Your task to perform on an android device: turn on bluetooth scan Image 0: 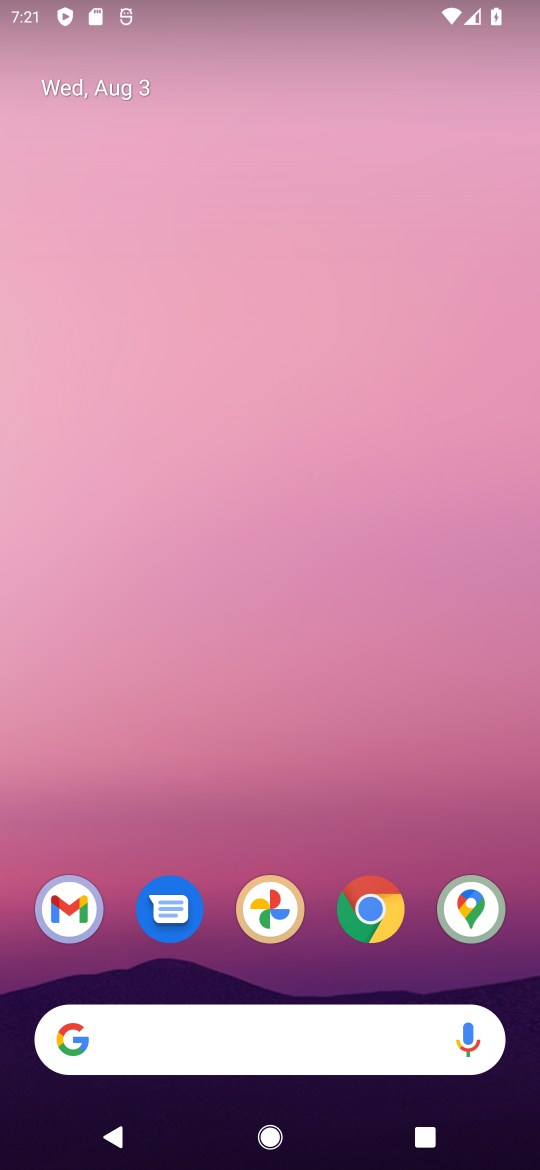
Step 0: press home button
Your task to perform on an android device: turn on bluetooth scan Image 1: 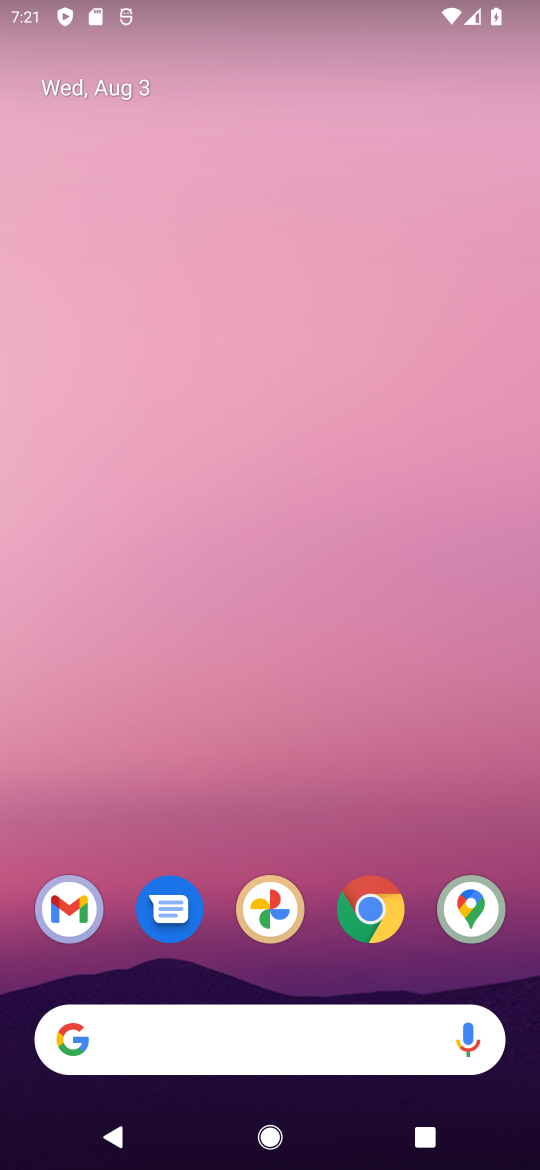
Step 1: drag from (395, 841) to (411, 220)
Your task to perform on an android device: turn on bluetooth scan Image 2: 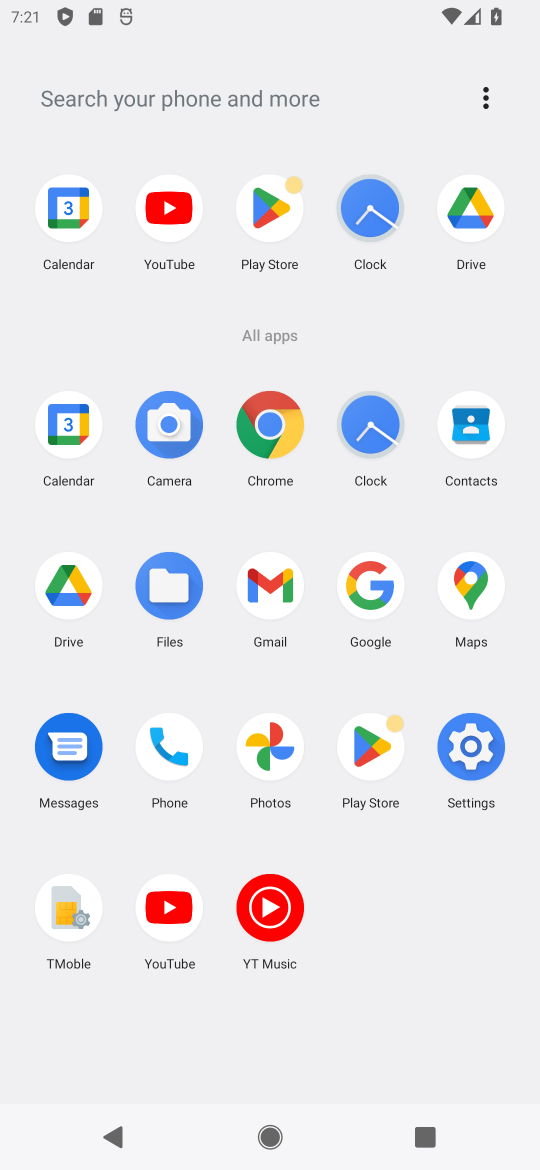
Step 2: click (474, 743)
Your task to perform on an android device: turn on bluetooth scan Image 3: 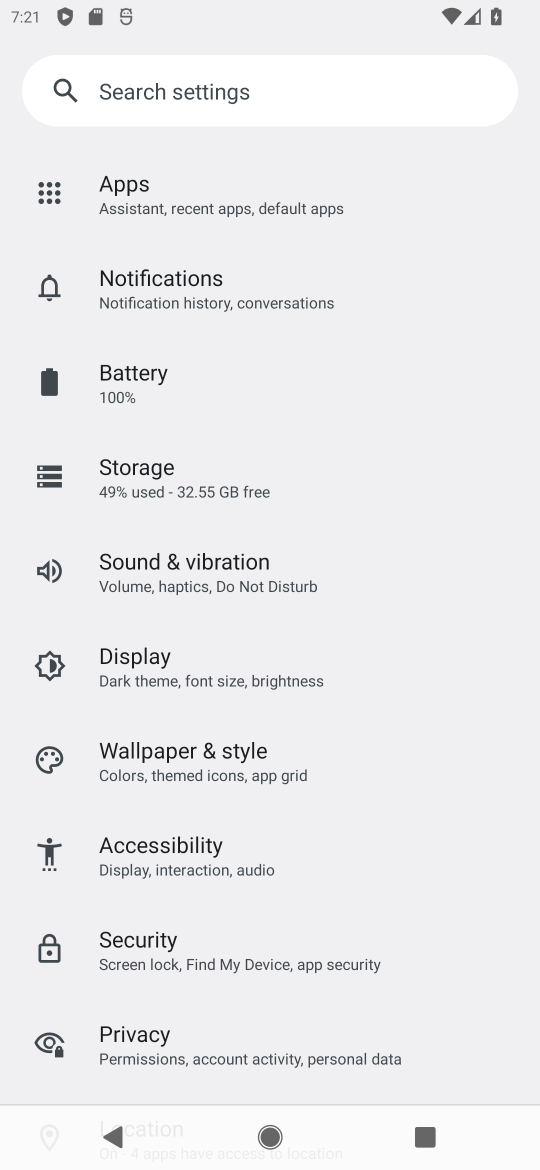
Step 3: drag from (425, 922) to (428, 694)
Your task to perform on an android device: turn on bluetooth scan Image 4: 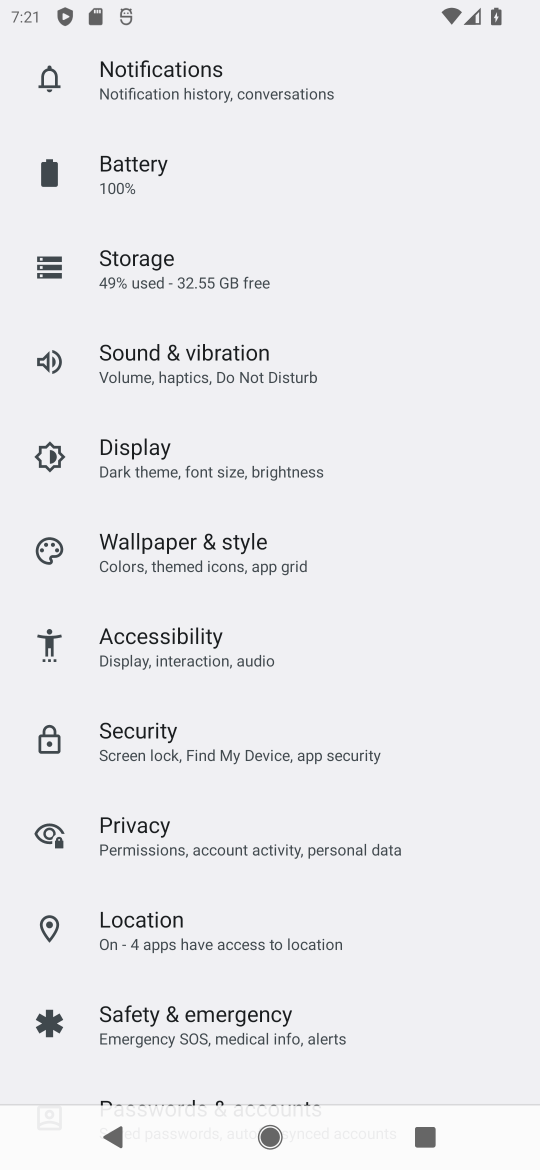
Step 4: drag from (449, 894) to (456, 740)
Your task to perform on an android device: turn on bluetooth scan Image 5: 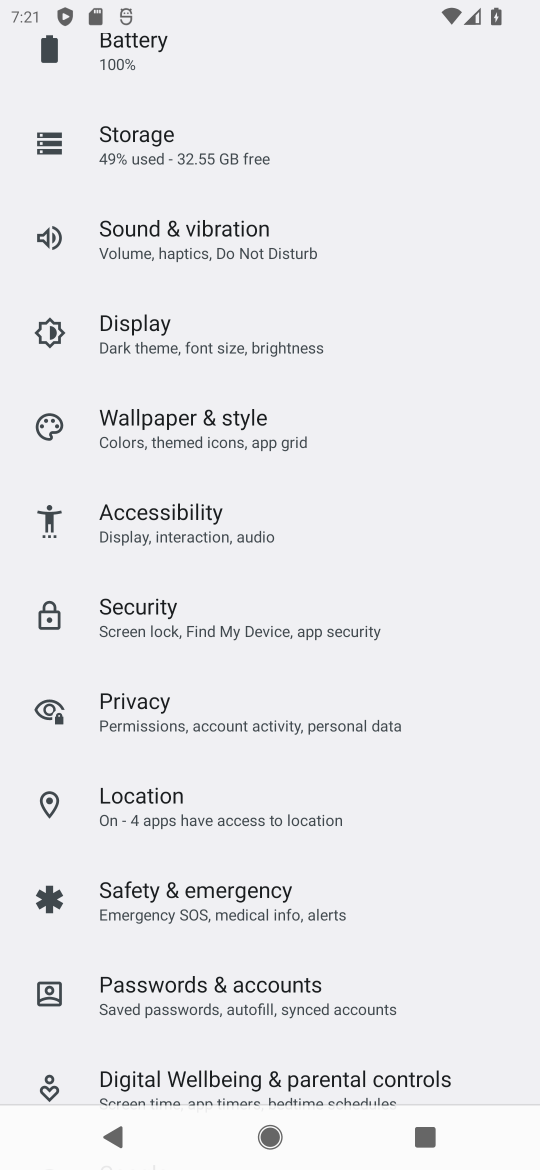
Step 5: drag from (432, 928) to (431, 731)
Your task to perform on an android device: turn on bluetooth scan Image 6: 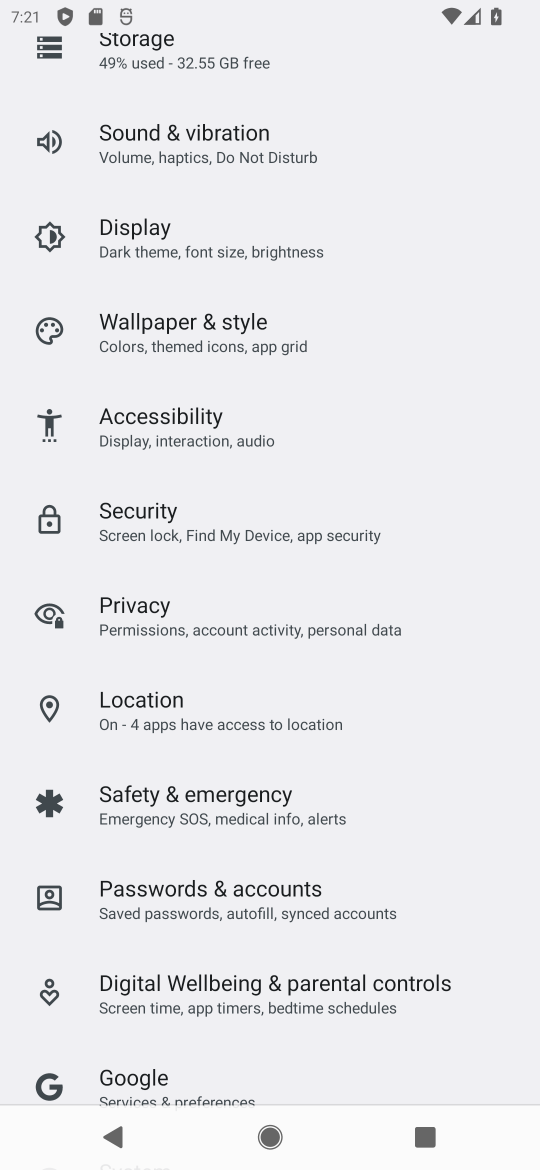
Step 6: drag from (458, 892) to (459, 637)
Your task to perform on an android device: turn on bluetooth scan Image 7: 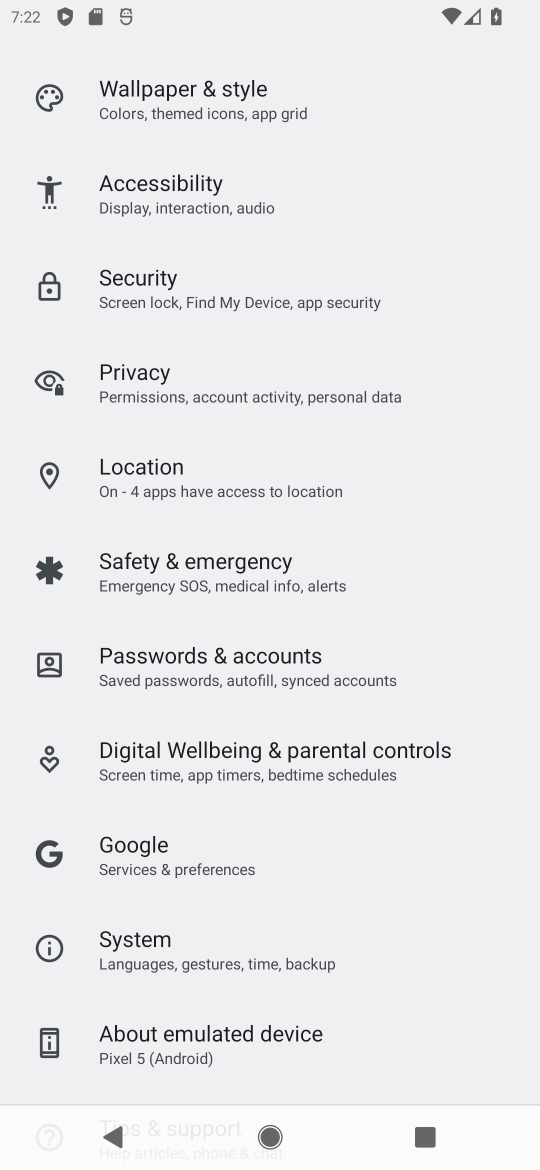
Step 7: drag from (452, 935) to (444, 756)
Your task to perform on an android device: turn on bluetooth scan Image 8: 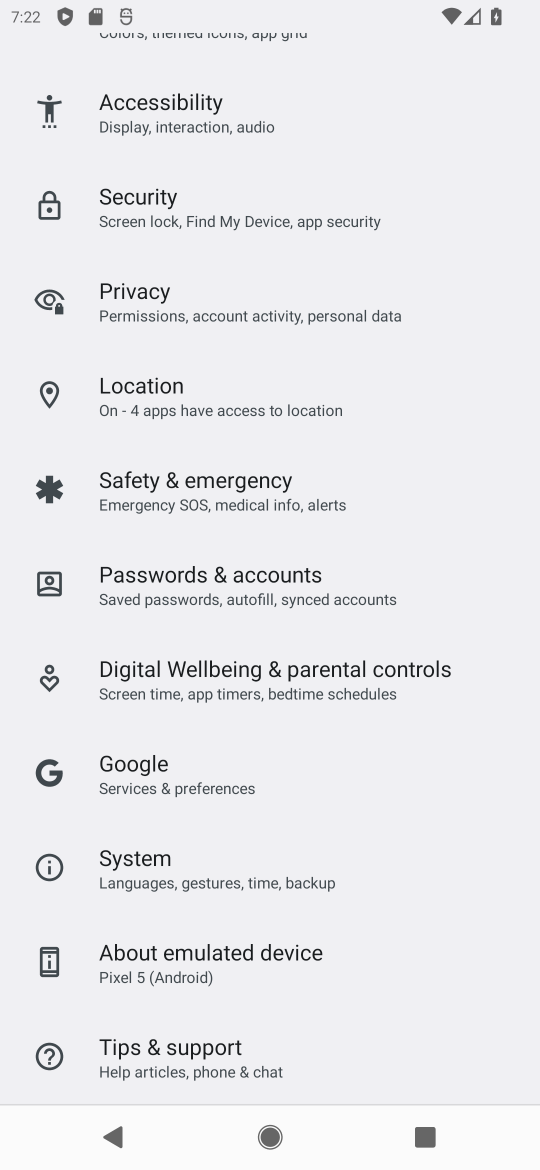
Step 8: drag from (470, 514) to (468, 626)
Your task to perform on an android device: turn on bluetooth scan Image 9: 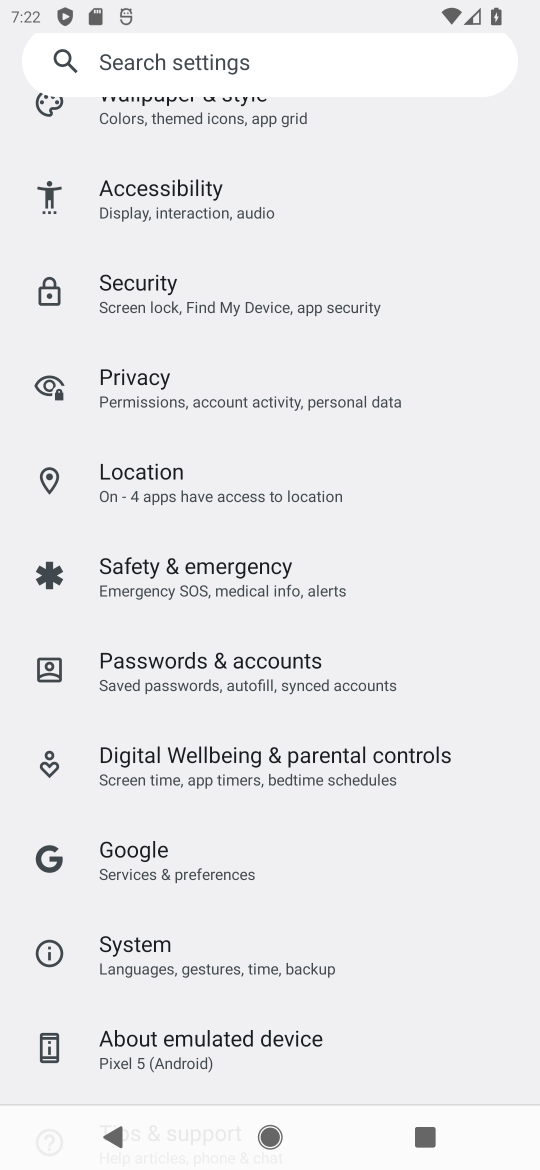
Step 9: drag from (445, 442) to (445, 616)
Your task to perform on an android device: turn on bluetooth scan Image 10: 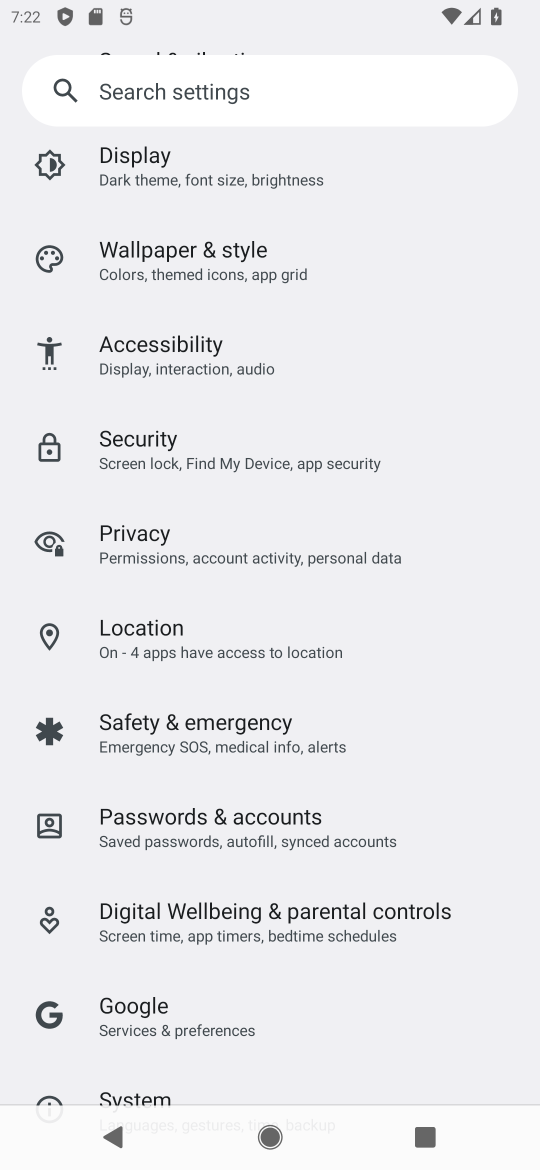
Step 10: click (377, 646)
Your task to perform on an android device: turn on bluetooth scan Image 11: 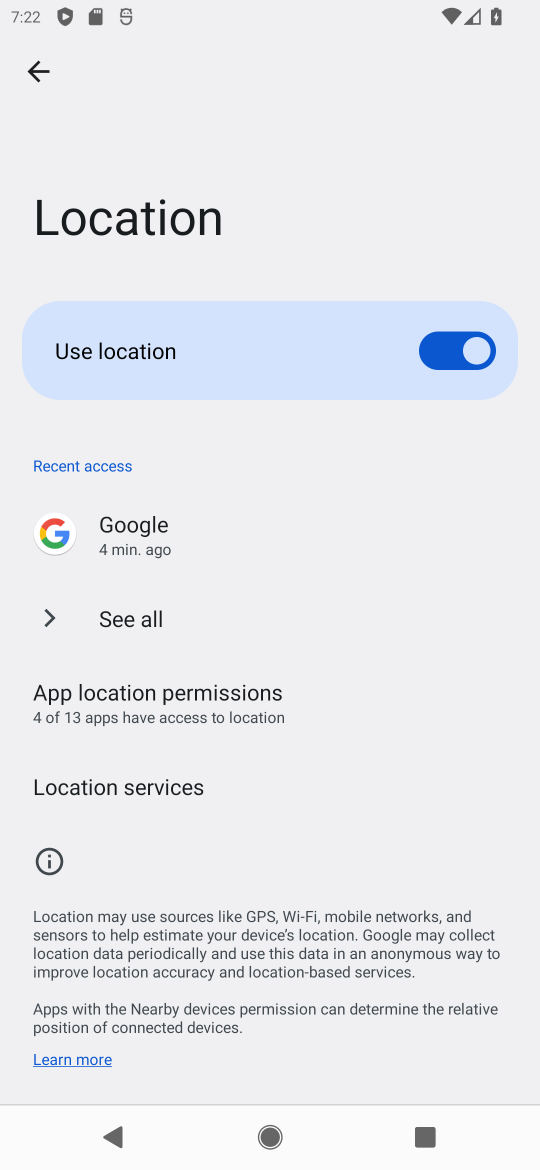
Step 11: drag from (357, 895) to (354, 736)
Your task to perform on an android device: turn on bluetooth scan Image 12: 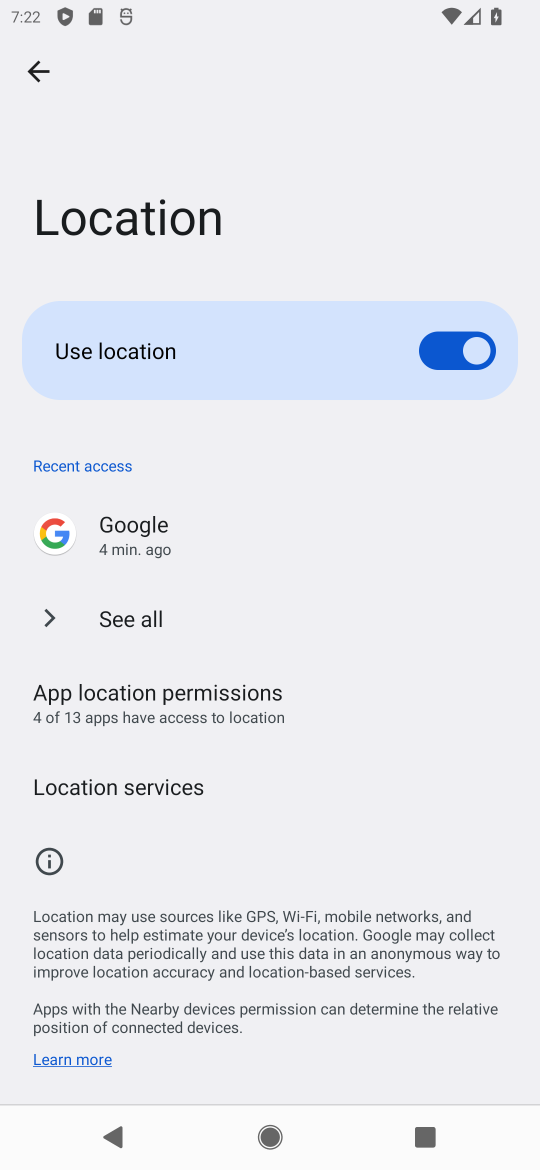
Step 12: click (194, 784)
Your task to perform on an android device: turn on bluetooth scan Image 13: 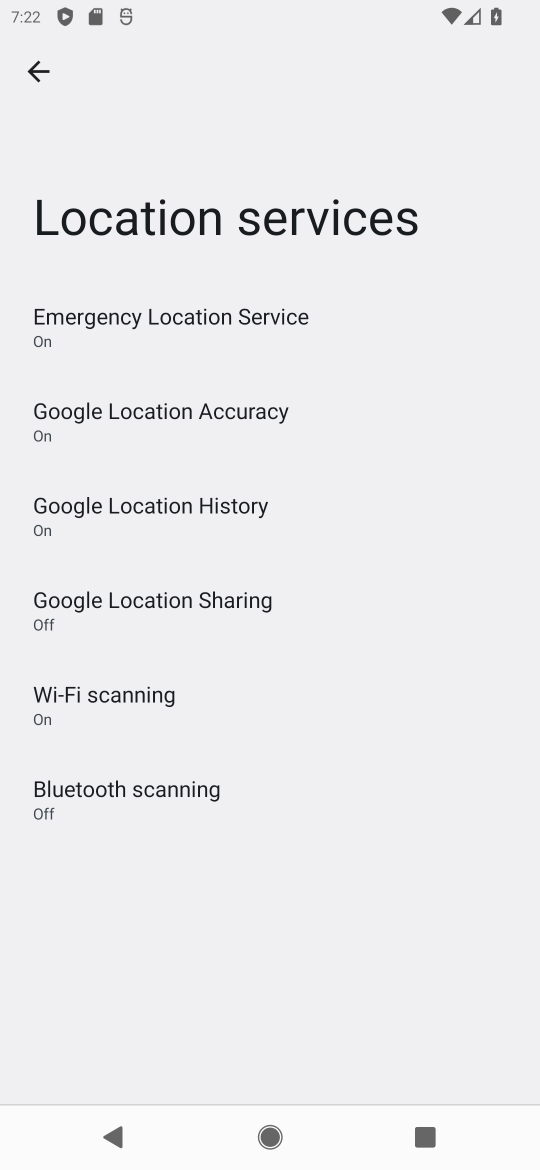
Step 13: click (155, 804)
Your task to perform on an android device: turn on bluetooth scan Image 14: 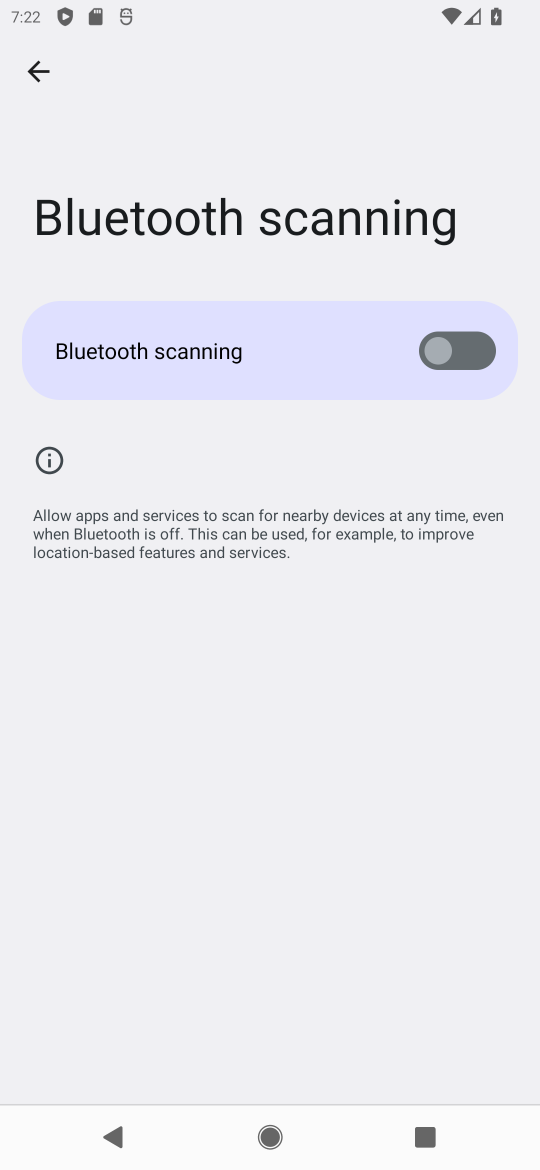
Step 14: click (443, 354)
Your task to perform on an android device: turn on bluetooth scan Image 15: 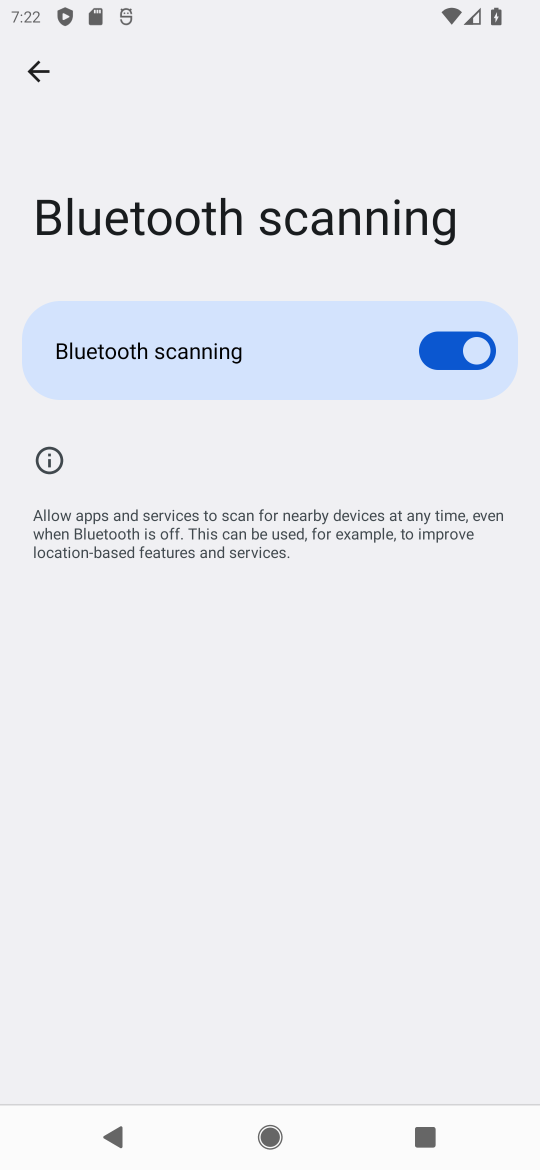
Step 15: task complete